Your task to perform on an android device: empty trash in google photos Image 0: 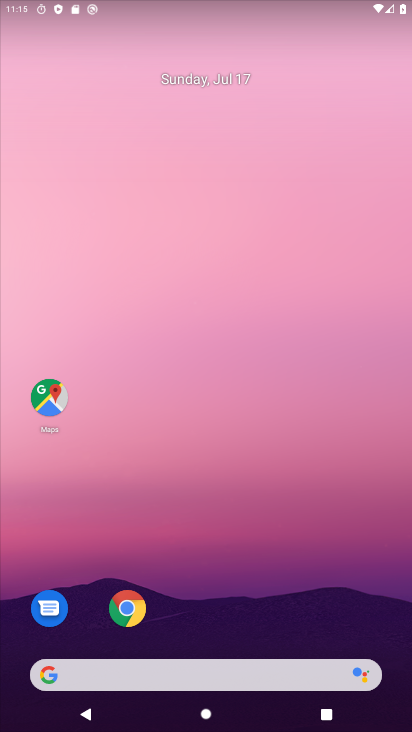
Step 0: drag from (269, 591) to (344, 186)
Your task to perform on an android device: empty trash in google photos Image 1: 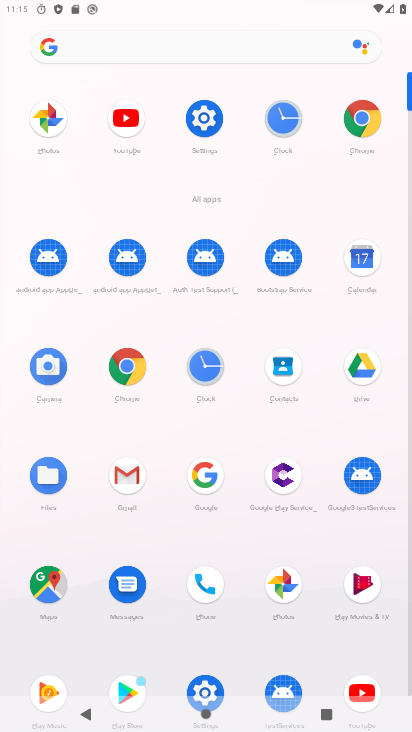
Step 1: click (277, 580)
Your task to perform on an android device: empty trash in google photos Image 2: 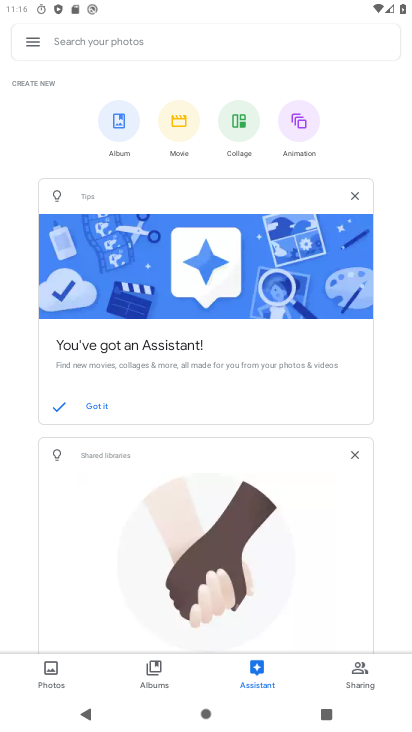
Step 2: click (26, 46)
Your task to perform on an android device: empty trash in google photos Image 3: 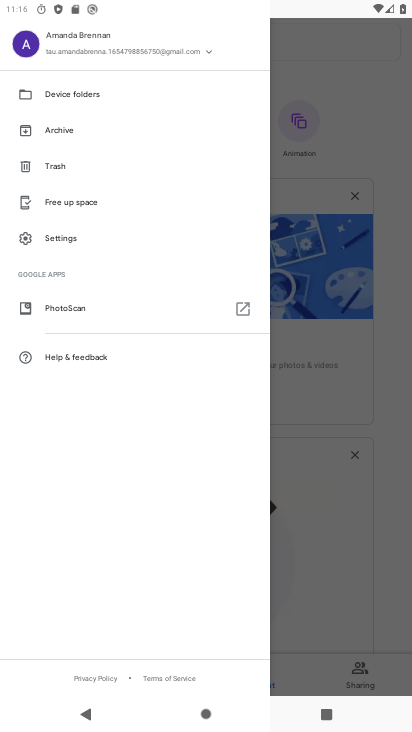
Step 3: click (43, 160)
Your task to perform on an android device: empty trash in google photos Image 4: 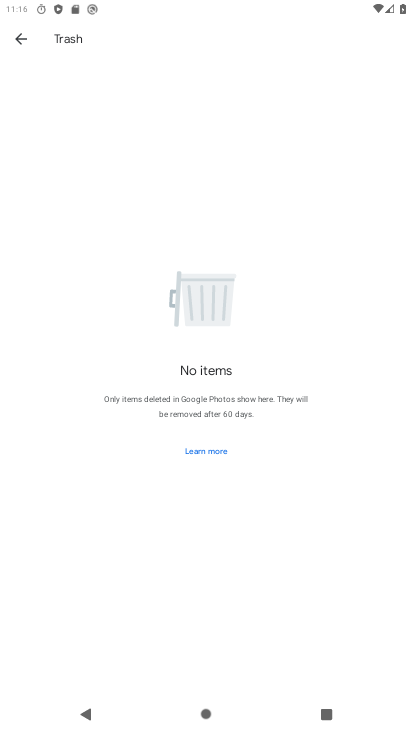
Step 4: task complete